Your task to perform on an android device: set the timer Image 0: 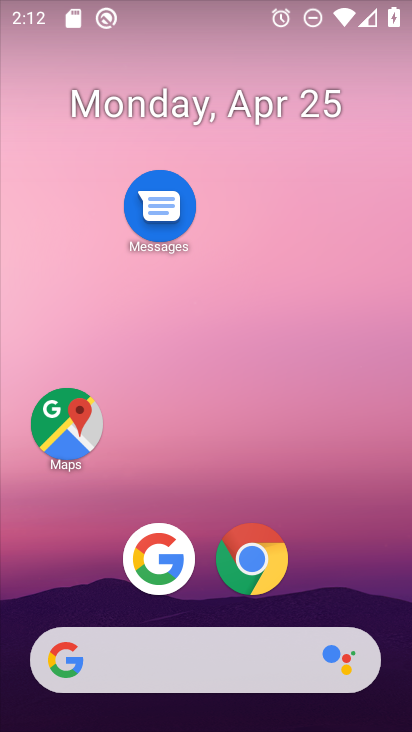
Step 0: drag from (204, 581) to (242, 124)
Your task to perform on an android device: set the timer Image 1: 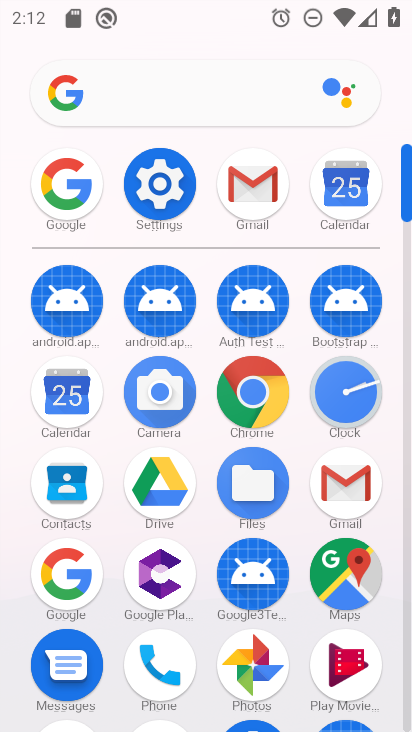
Step 1: drag from (202, 607) to (229, 230)
Your task to perform on an android device: set the timer Image 2: 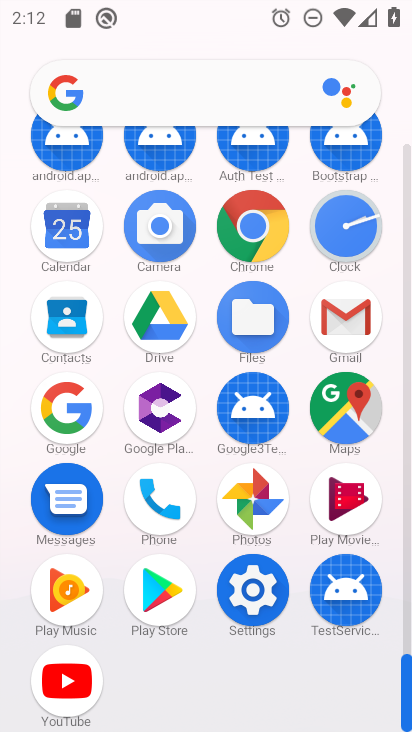
Step 2: drag from (206, 549) to (200, 593)
Your task to perform on an android device: set the timer Image 3: 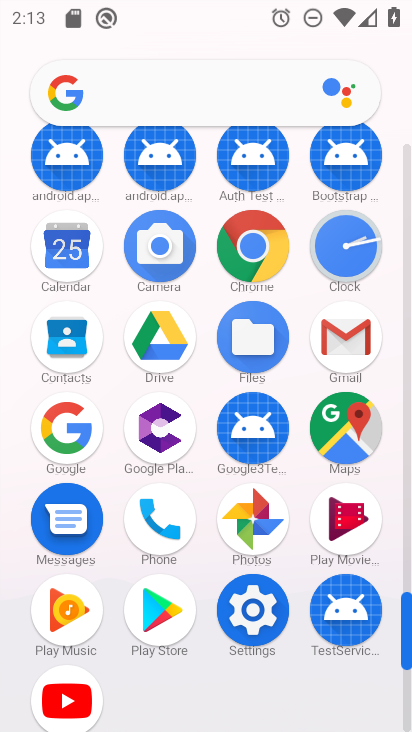
Step 3: click (348, 243)
Your task to perform on an android device: set the timer Image 4: 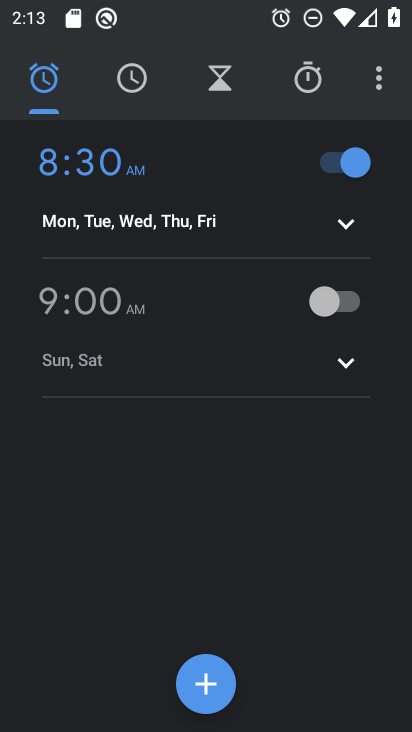
Step 4: task complete